Your task to perform on an android device: turn notification dots on Image 0: 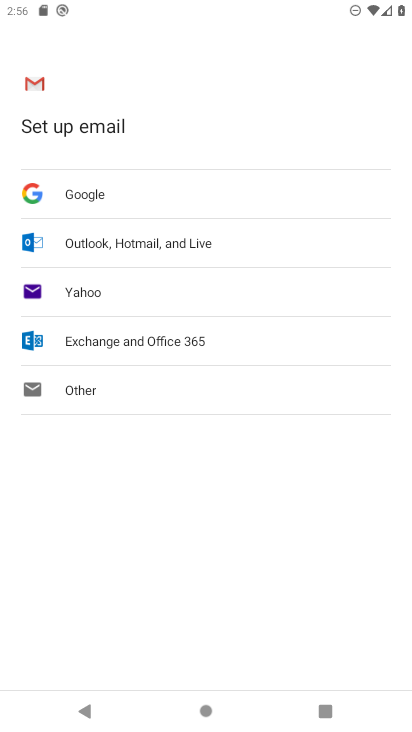
Step 0: press home button
Your task to perform on an android device: turn notification dots on Image 1: 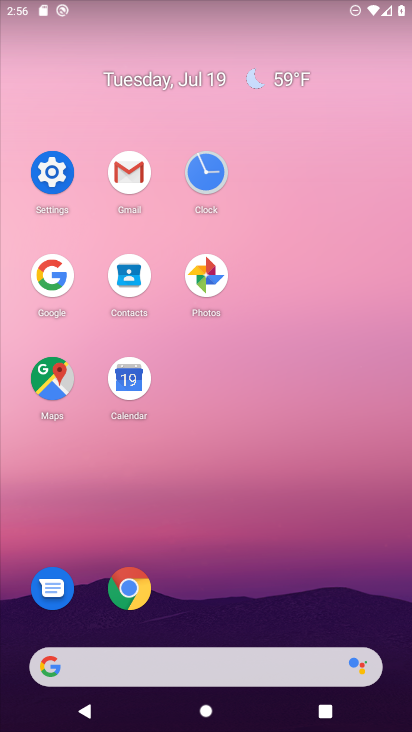
Step 1: click (58, 163)
Your task to perform on an android device: turn notification dots on Image 2: 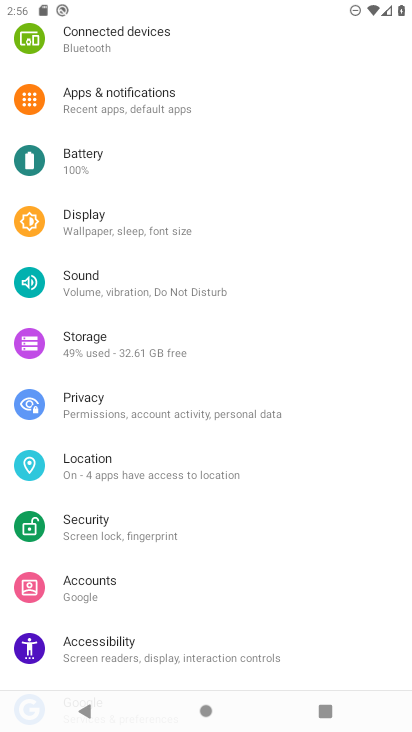
Step 2: click (116, 92)
Your task to perform on an android device: turn notification dots on Image 3: 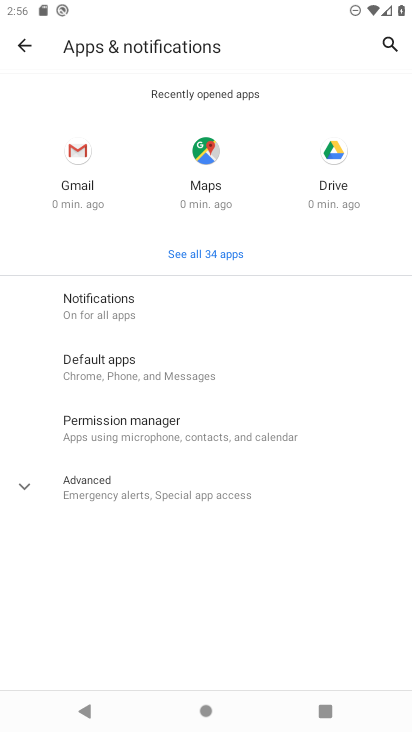
Step 3: click (202, 305)
Your task to perform on an android device: turn notification dots on Image 4: 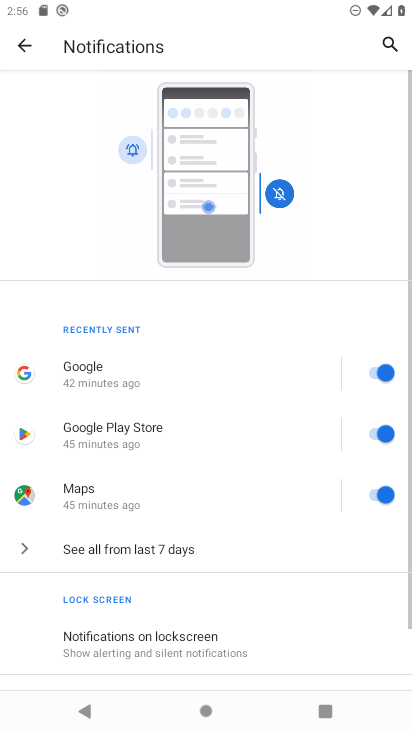
Step 4: drag from (178, 497) to (187, 299)
Your task to perform on an android device: turn notification dots on Image 5: 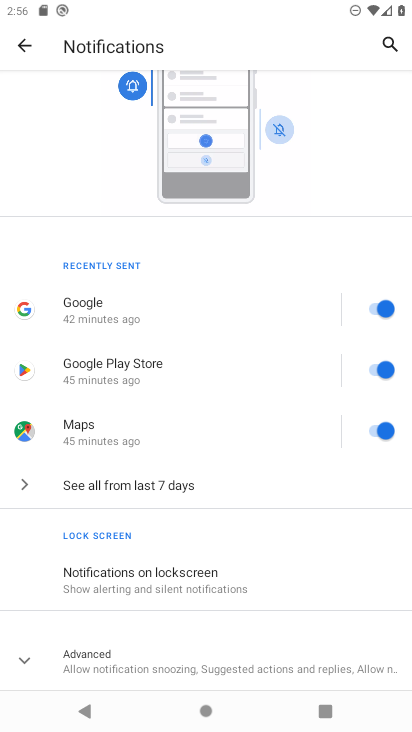
Step 5: click (226, 640)
Your task to perform on an android device: turn notification dots on Image 6: 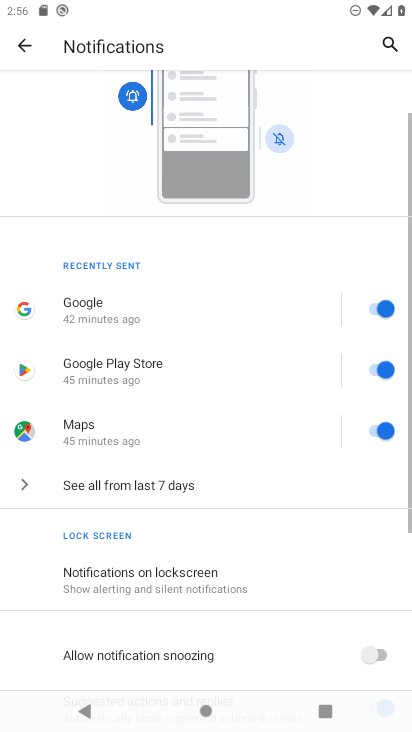
Step 6: task complete